Your task to perform on an android device: Open Google Chrome and open the bookmarks view Image 0: 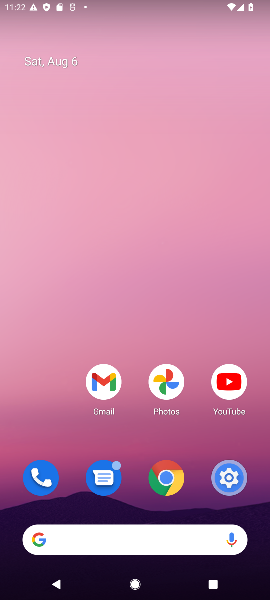
Step 0: click (159, 485)
Your task to perform on an android device: Open Google Chrome and open the bookmarks view Image 1: 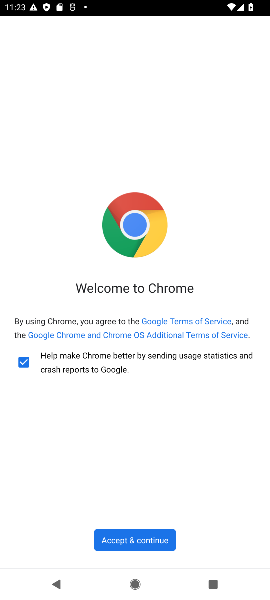
Step 1: click (137, 540)
Your task to perform on an android device: Open Google Chrome and open the bookmarks view Image 2: 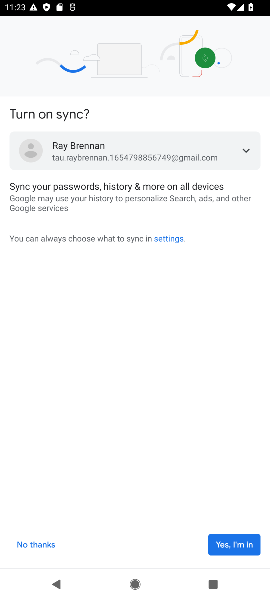
Step 2: click (222, 546)
Your task to perform on an android device: Open Google Chrome and open the bookmarks view Image 3: 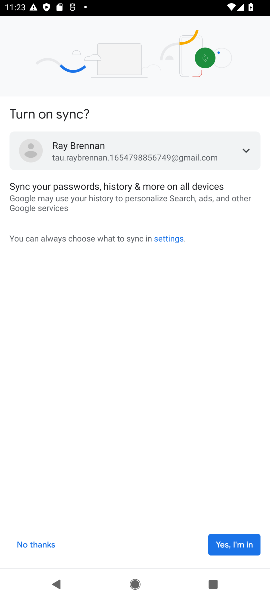
Step 3: click (220, 542)
Your task to perform on an android device: Open Google Chrome and open the bookmarks view Image 4: 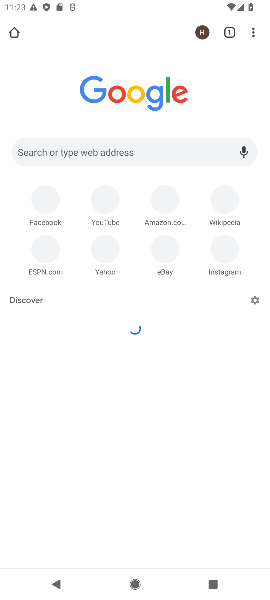
Step 4: click (254, 32)
Your task to perform on an android device: Open Google Chrome and open the bookmarks view Image 5: 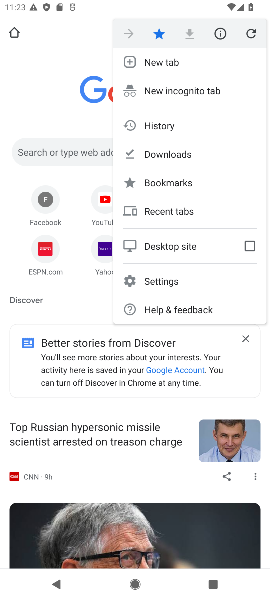
Step 5: click (161, 187)
Your task to perform on an android device: Open Google Chrome and open the bookmarks view Image 6: 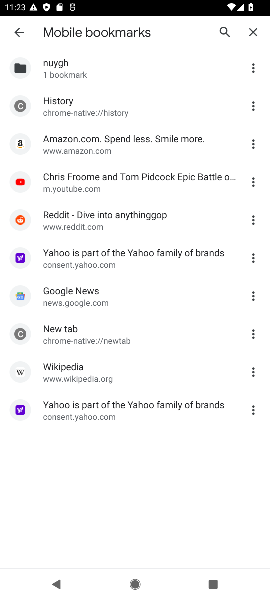
Step 6: task complete